Your task to perform on an android device: Go to Wikipedia Image 0: 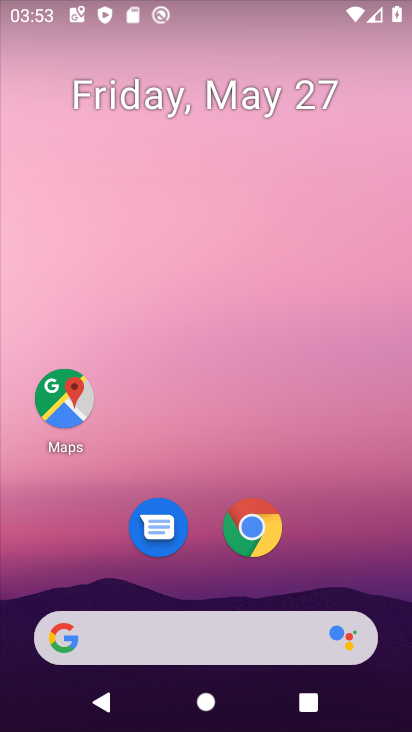
Step 0: click (261, 510)
Your task to perform on an android device: Go to Wikipedia Image 1: 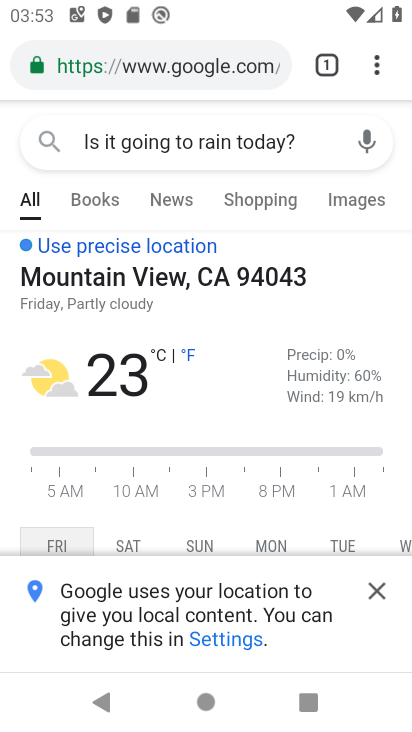
Step 1: drag from (378, 64) to (142, 121)
Your task to perform on an android device: Go to Wikipedia Image 2: 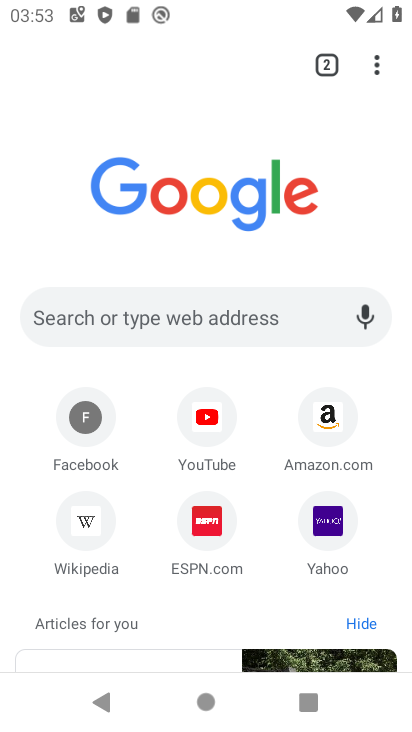
Step 2: click (99, 542)
Your task to perform on an android device: Go to Wikipedia Image 3: 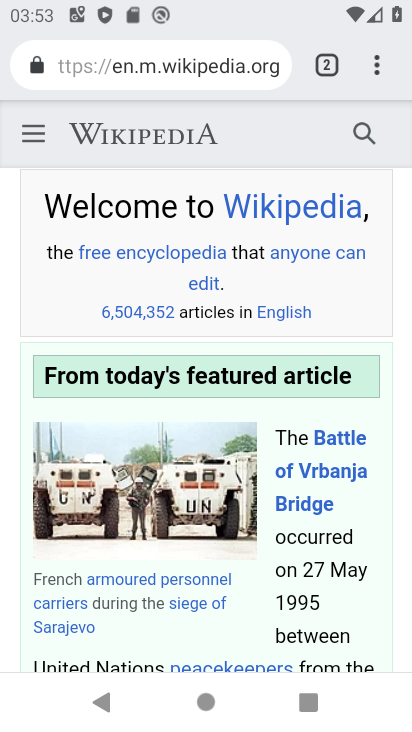
Step 3: task complete